Your task to perform on an android device: Check the news Image 0: 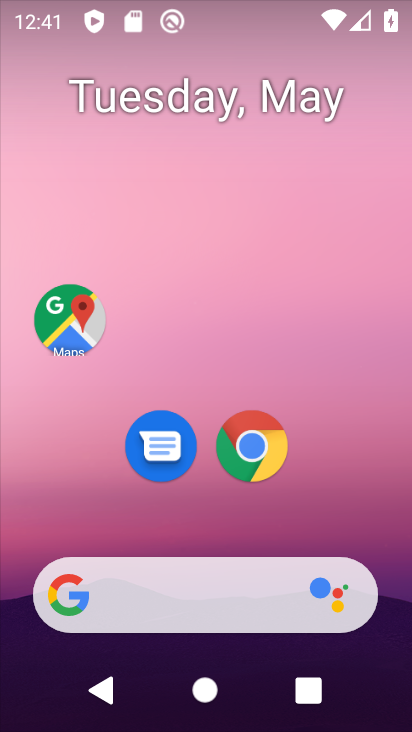
Step 0: drag from (16, 248) to (411, 279)
Your task to perform on an android device: Check the news Image 1: 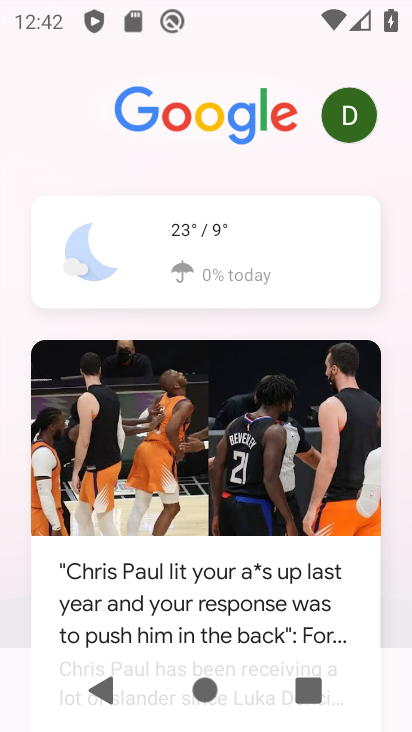
Step 1: task complete